Your task to perform on an android device: Check the news Image 0: 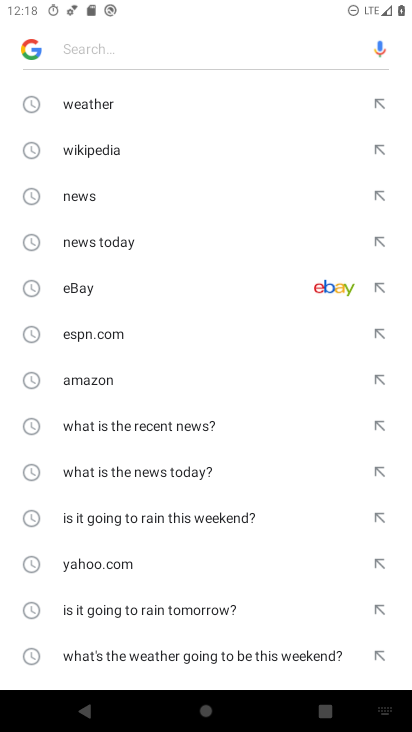
Step 0: press home button
Your task to perform on an android device: Check the news Image 1: 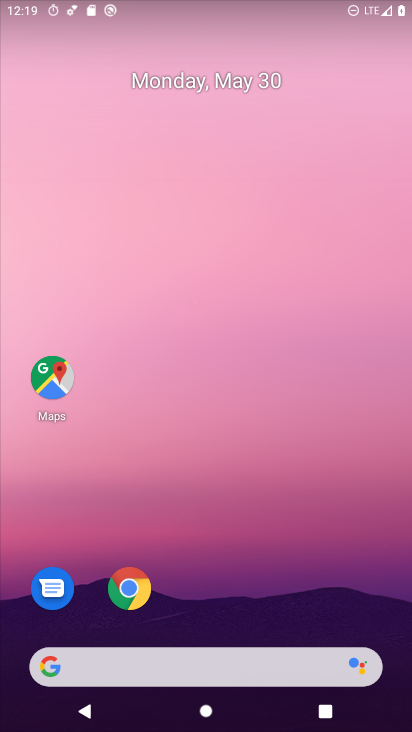
Step 1: drag from (218, 611) to (277, 92)
Your task to perform on an android device: Check the news Image 2: 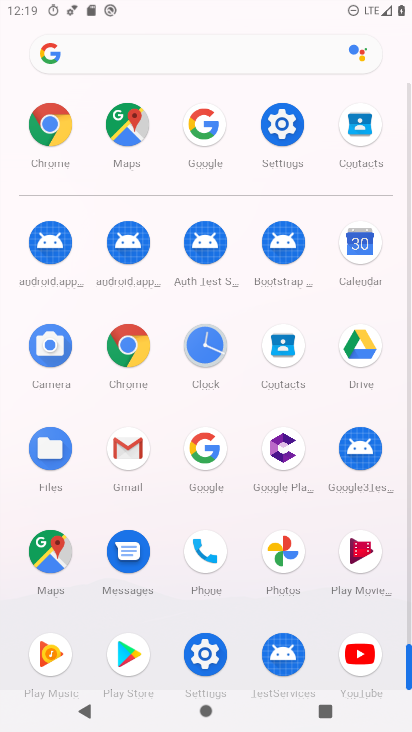
Step 2: click (205, 462)
Your task to perform on an android device: Check the news Image 3: 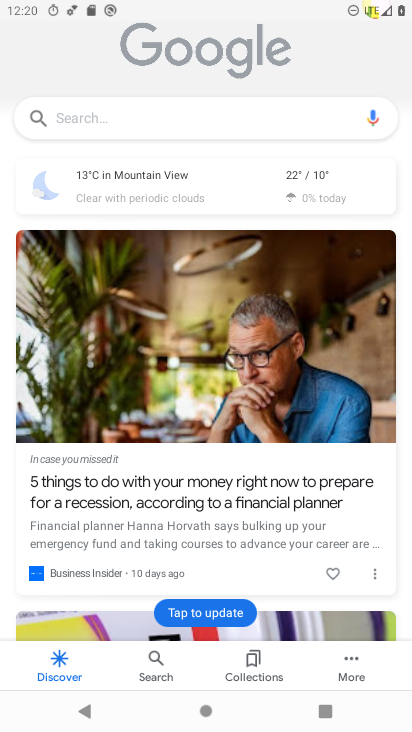
Step 3: task complete